Your task to perform on an android device: Show me the alarms in the clock app Image 0: 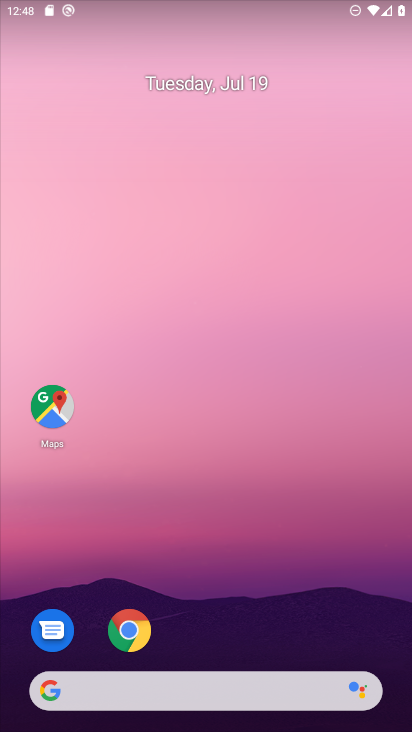
Step 0: press home button
Your task to perform on an android device: Show me the alarms in the clock app Image 1: 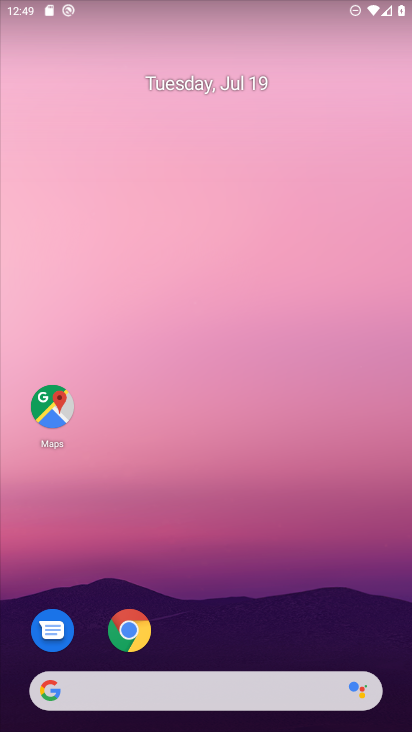
Step 1: drag from (159, 687) to (261, 165)
Your task to perform on an android device: Show me the alarms in the clock app Image 2: 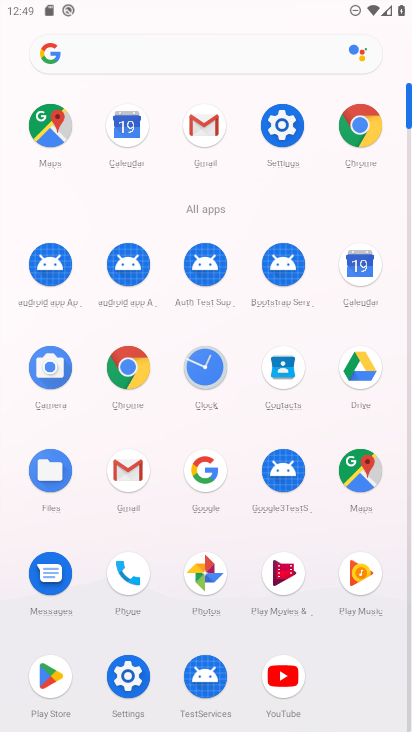
Step 2: click (203, 369)
Your task to perform on an android device: Show me the alarms in the clock app Image 3: 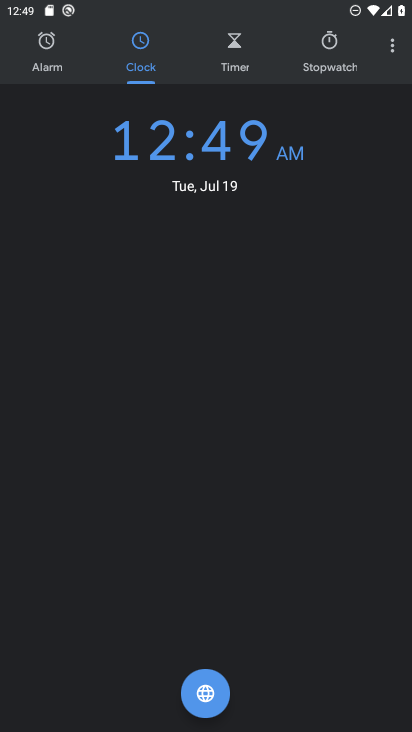
Step 3: click (49, 61)
Your task to perform on an android device: Show me the alarms in the clock app Image 4: 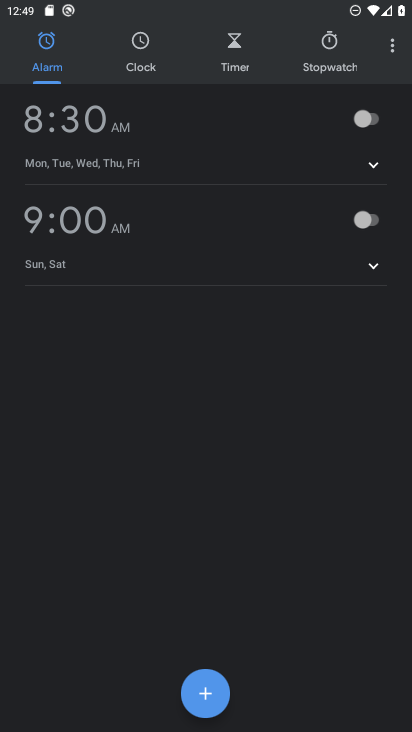
Step 4: task complete